Your task to perform on an android device: Go to Yahoo.com Image 0: 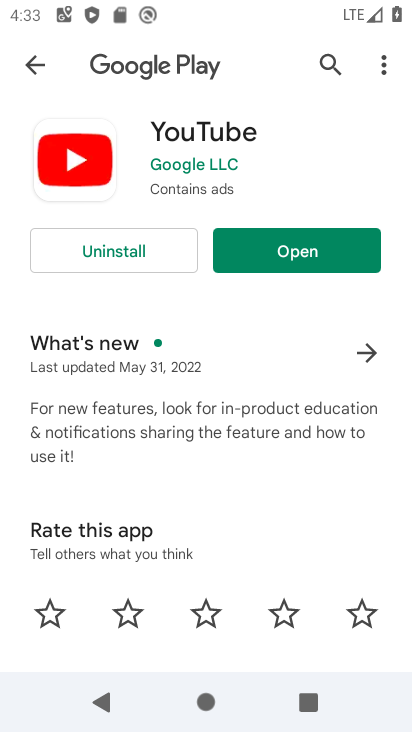
Step 0: press home button
Your task to perform on an android device: Go to Yahoo.com Image 1: 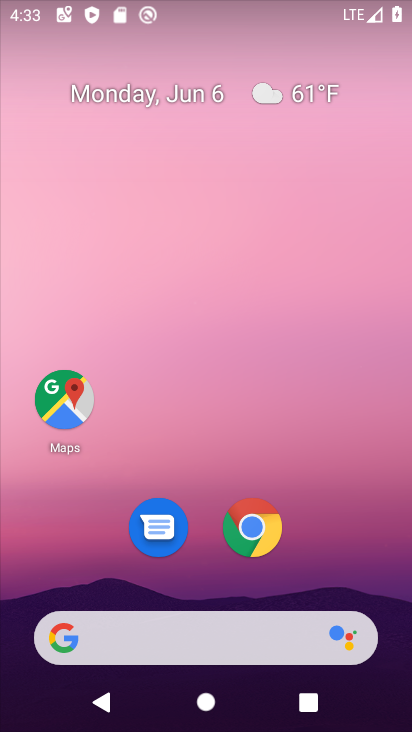
Step 1: click (243, 531)
Your task to perform on an android device: Go to Yahoo.com Image 2: 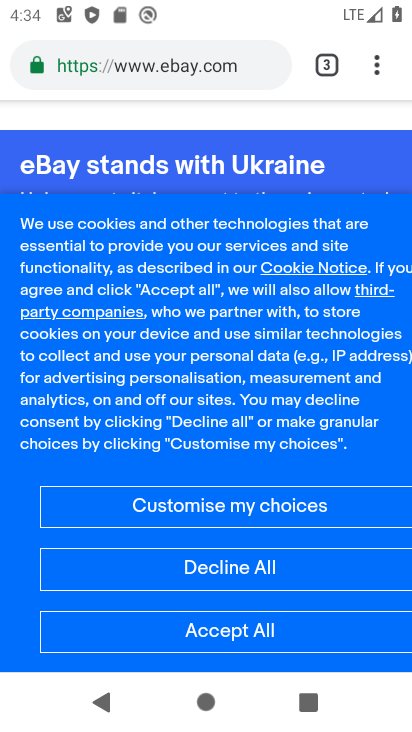
Step 2: click (327, 55)
Your task to perform on an android device: Go to Yahoo.com Image 3: 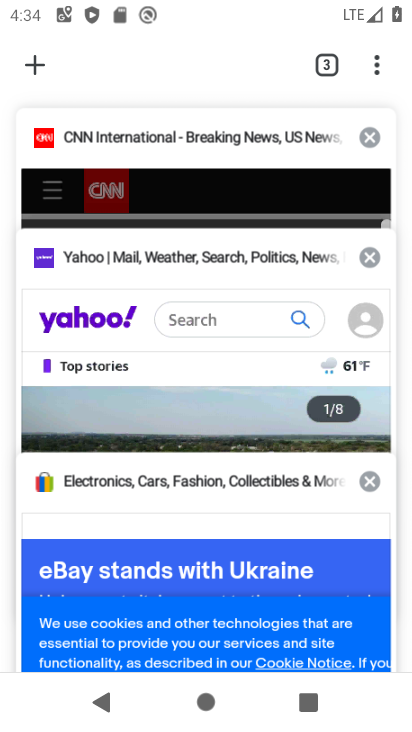
Step 3: click (71, 319)
Your task to perform on an android device: Go to Yahoo.com Image 4: 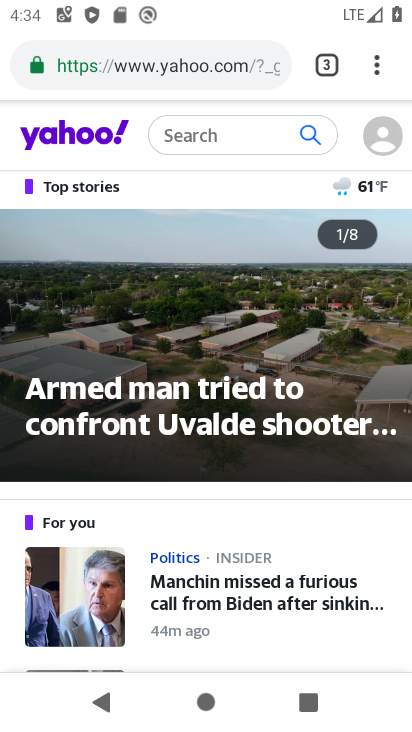
Step 4: task complete